Your task to perform on an android device: delete a single message in the gmail app Image 0: 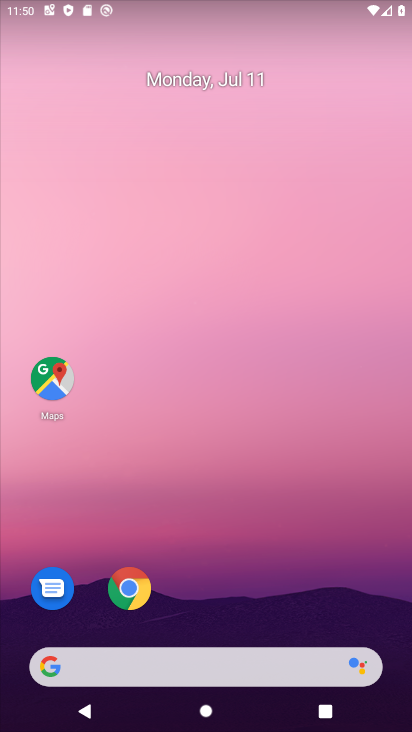
Step 0: drag from (267, 429) to (194, 130)
Your task to perform on an android device: delete a single message in the gmail app Image 1: 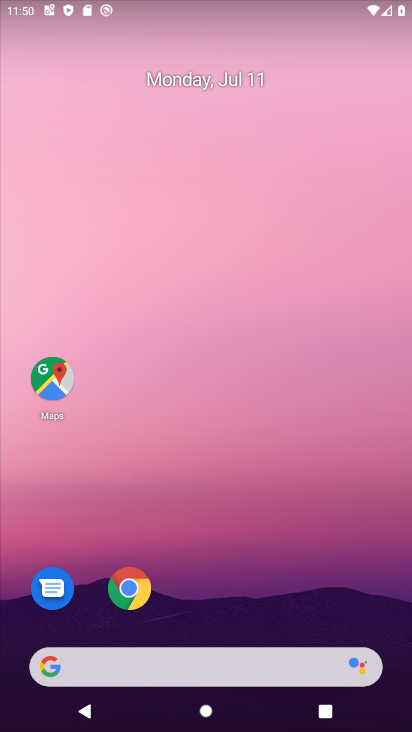
Step 1: drag from (284, 476) to (173, 62)
Your task to perform on an android device: delete a single message in the gmail app Image 2: 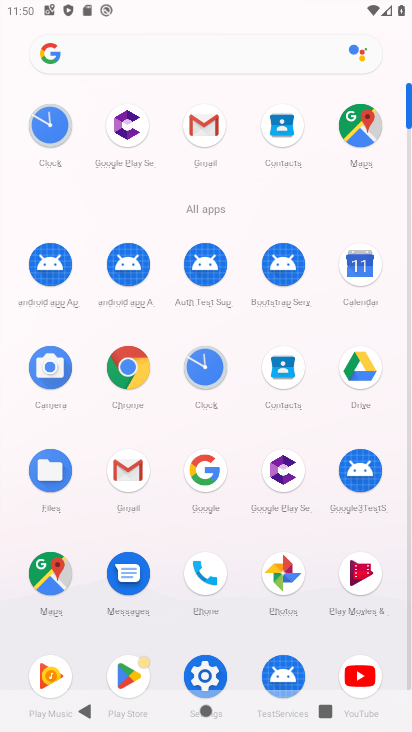
Step 2: click (217, 135)
Your task to perform on an android device: delete a single message in the gmail app Image 3: 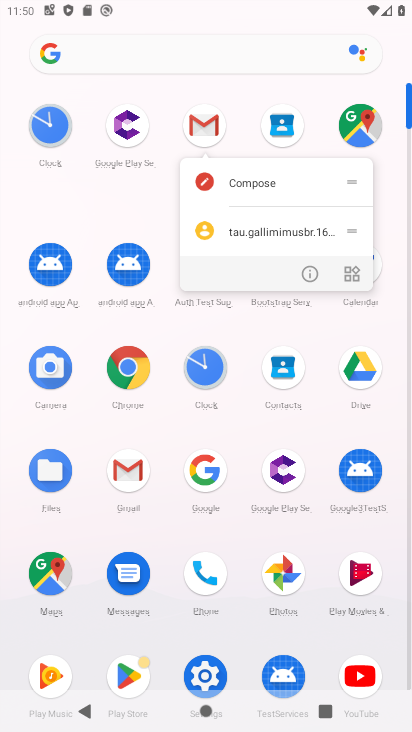
Step 3: click (210, 130)
Your task to perform on an android device: delete a single message in the gmail app Image 4: 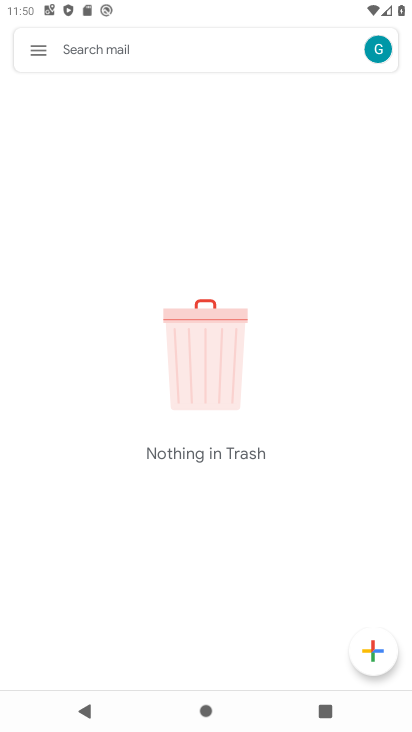
Step 4: click (32, 51)
Your task to perform on an android device: delete a single message in the gmail app Image 5: 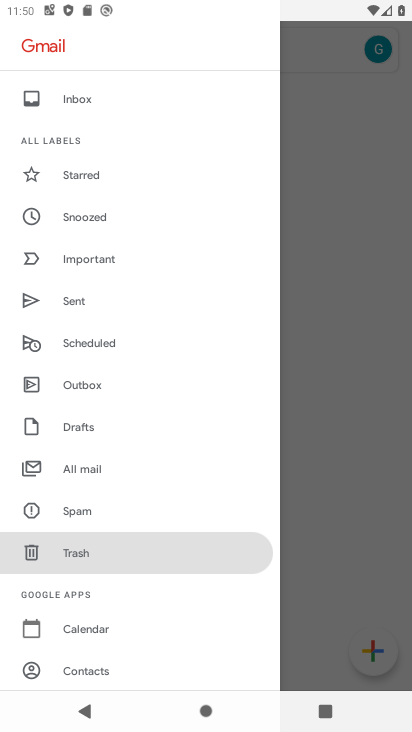
Step 5: click (106, 478)
Your task to perform on an android device: delete a single message in the gmail app Image 6: 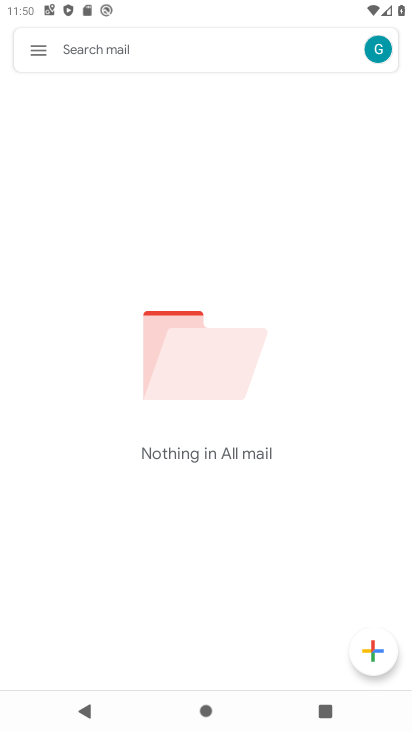
Step 6: task complete